Your task to perform on an android device: Toggle notifications for the Google Photos app Image 0: 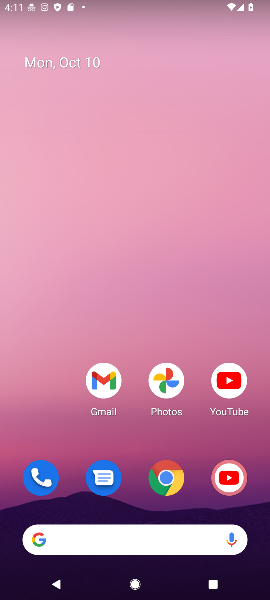
Step 0: click (163, 381)
Your task to perform on an android device: Toggle notifications for the Google Photos app Image 1: 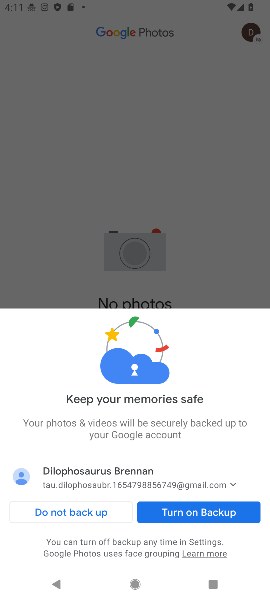
Step 1: click (166, 506)
Your task to perform on an android device: Toggle notifications for the Google Photos app Image 2: 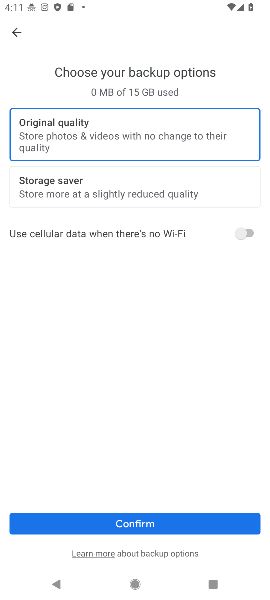
Step 2: click (166, 506)
Your task to perform on an android device: Toggle notifications for the Google Photos app Image 3: 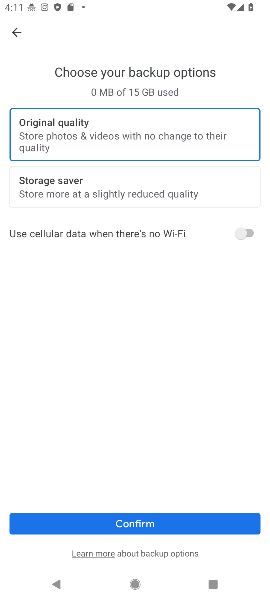
Step 3: click (167, 518)
Your task to perform on an android device: Toggle notifications for the Google Photos app Image 4: 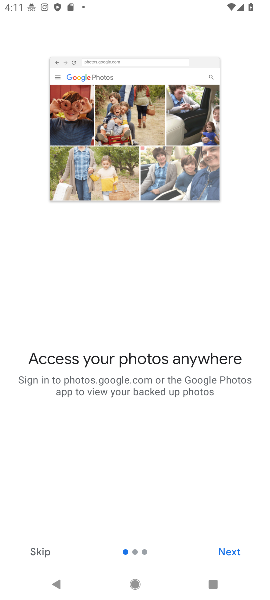
Step 4: click (225, 550)
Your task to perform on an android device: Toggle notifications for the Google Photos app Image 5: 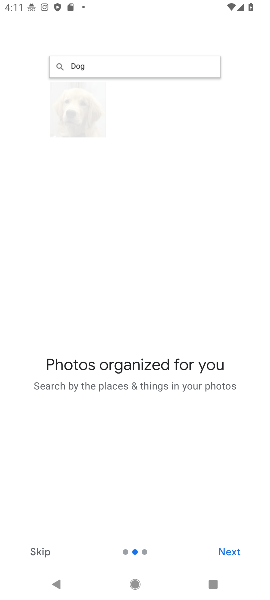
Step 5: click (225, 550)
Your task to perform on an android device: Toggle notifications for the Google Photos app Image 6: 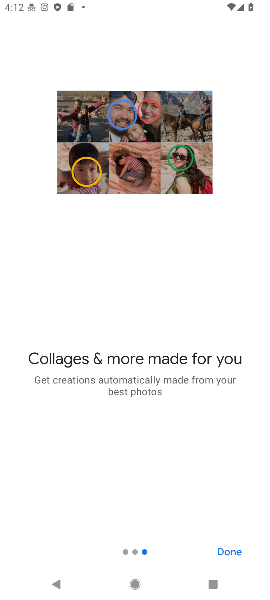
Step 6: click (225, 550)
Your task to perform on an android device: Toggle notifications for the Google Photos app Image 7: 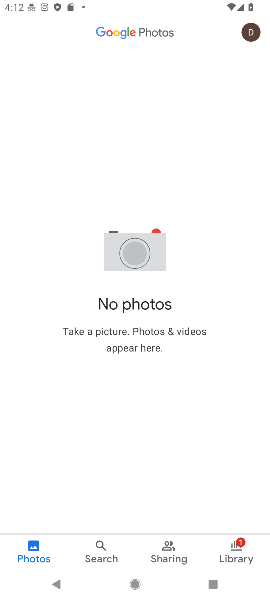
Step 7: click (244, 27)
Your task to perform on an android device: Toggle notifications for the Google Photos app Image 8: 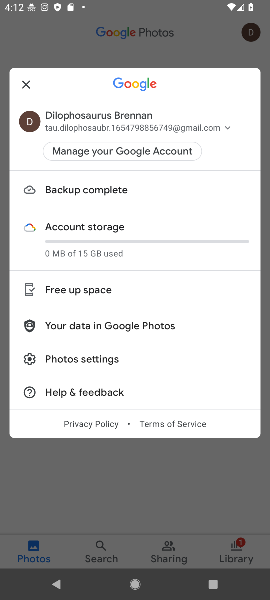
Step 8: click (94, 361)
Your task to perform on an android device: Toggle notifications for the Google Photos app Image 9: 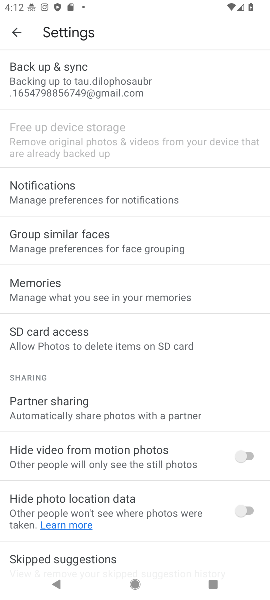
Step 9: click (82, 190)
Your task to perform on an android device: Toggle notifications for the Google Photos app Image 10: 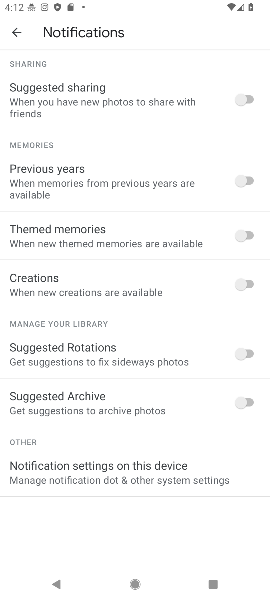
Step 10: click (245, 102)
Your task to perform on an android device: Toggle notifications for the Google Photos app Image 11: 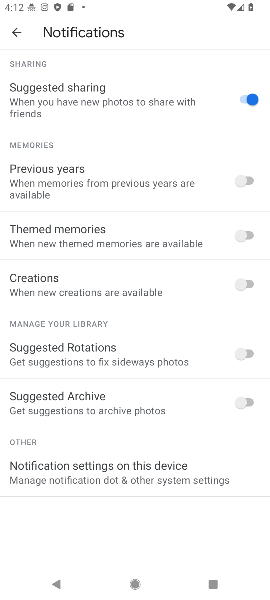
Step 11: click (244, 189)
Your task to perform on an android device: Toggle notifications for the Google Photos app Image 12: 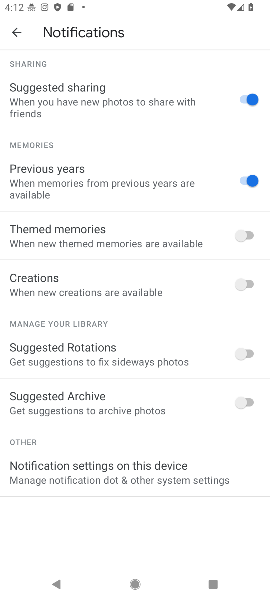
Step 12: click (249, 237)
Your task to perform on an android device: Toggle notifications for the Google Photos app Image 13: 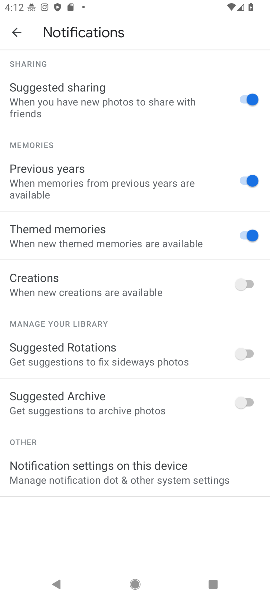
Step 13: click (244, 283)
Your task to perform on an android device: Toggle notifications for the Google Photos app Image 14: 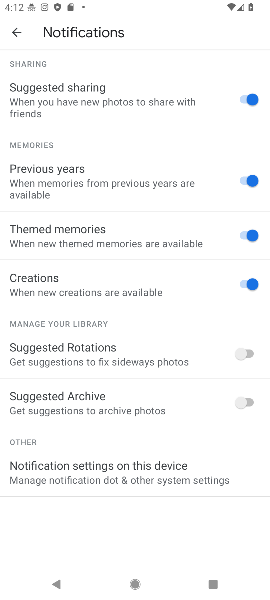
Step 14: click (251, 353)
Your task to perform on an android device: Toggle notifications for the Google Photos app Image 15: 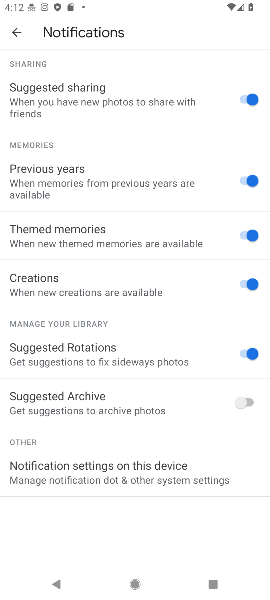
Step 15: click (250, 404)
Your task to perform on an android device: Toggle notifications for the Google Photos app Image 16: 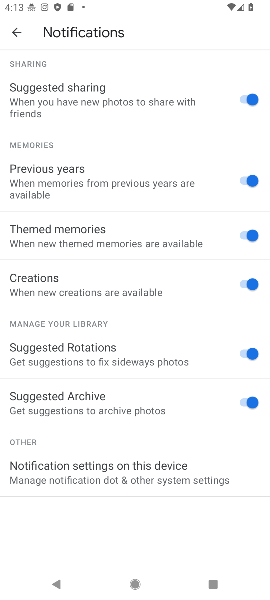
Step 16: task complete